Your task to perform on an android device: choose inbox layout in the gmail app Image 0: 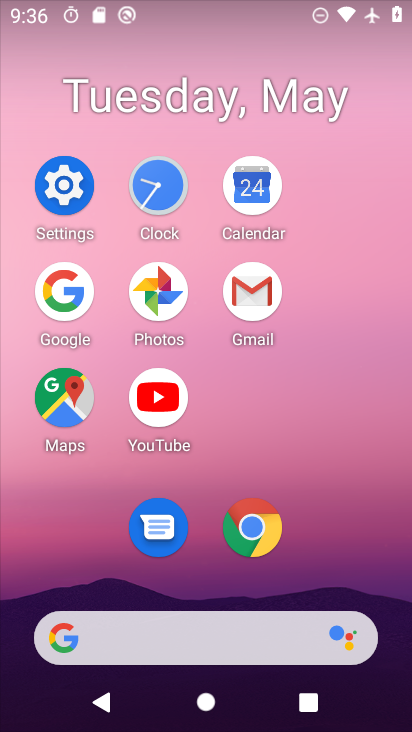
Step 0: click (268, 303)
Your task to perform on an android device: choose inbox layout in the gmail app Image 1: 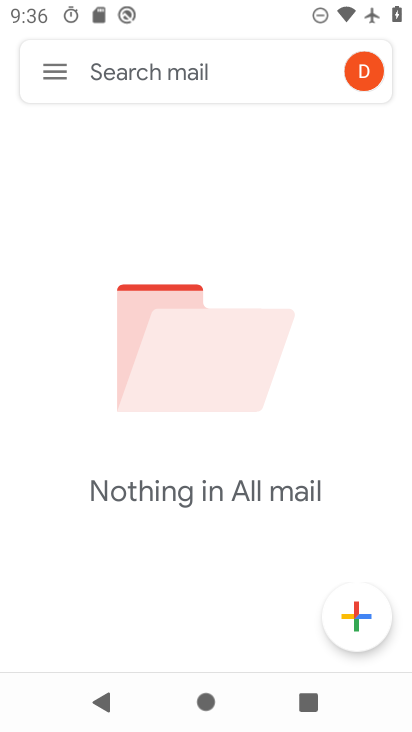
Step 1: click (44, 90)
Your task to perform on an android device: choose inbox layout in the gmail app Image 2: 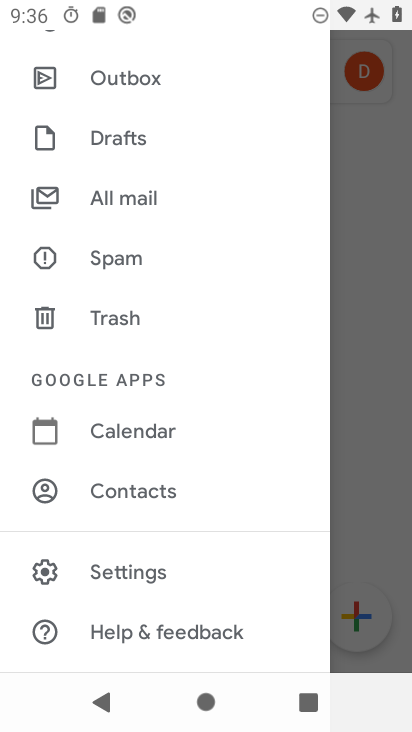
Step 2: click (179, 558)
Your task to perform on an android device: choose inbox layout in the gmail app Image 3: 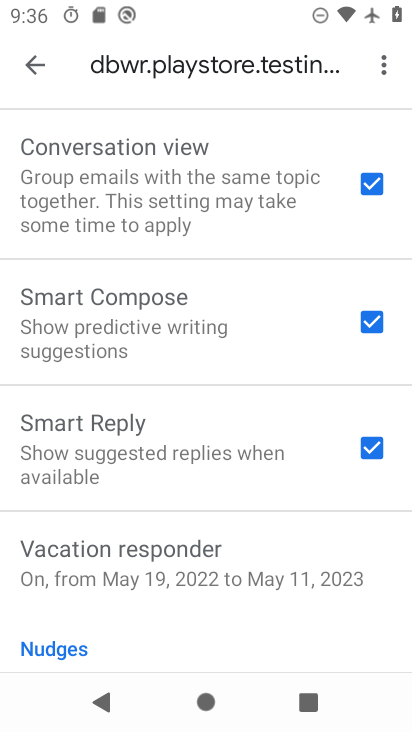
Step 3: drag from (225, 189) to (280, 597)
Your task to perform on an android device: choose inbox layout in the gmail app Image 4: 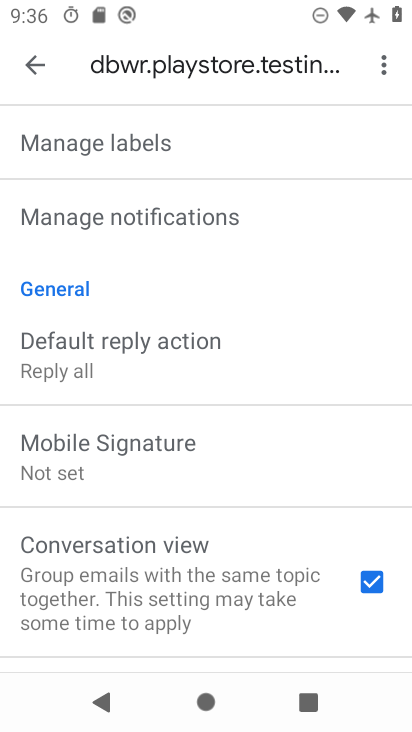
Step 4: drag from (310, 196) to (302, 583)
Your task to perform on an android device: choose inbox layout in the gmail app Image 5: 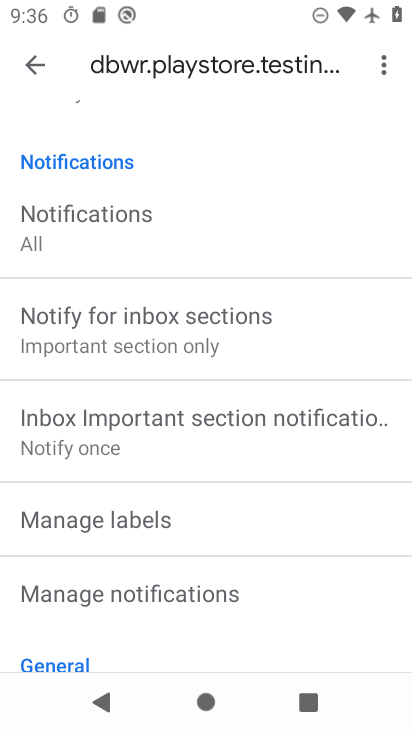
Step 5: drag from (253, 169) to (258, 562)
Your task to perform on an android device: choose inbox layout in the gmail app Image 6: 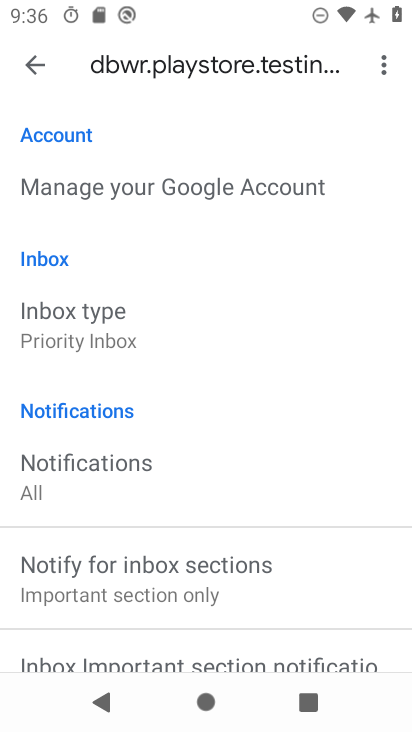
Step 6: click (144, 301)
Your task to perform on an android device: choose inbox layout in the gmail app Image 7: 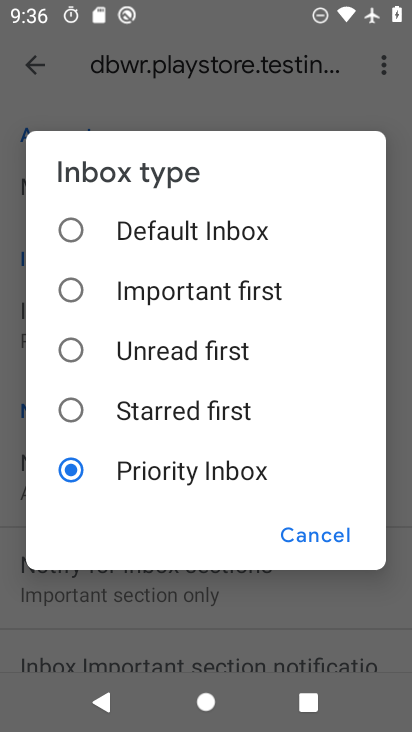
Step 7: task complete